Your task to perform on an android device: empty trash in the gmail app Image 0: 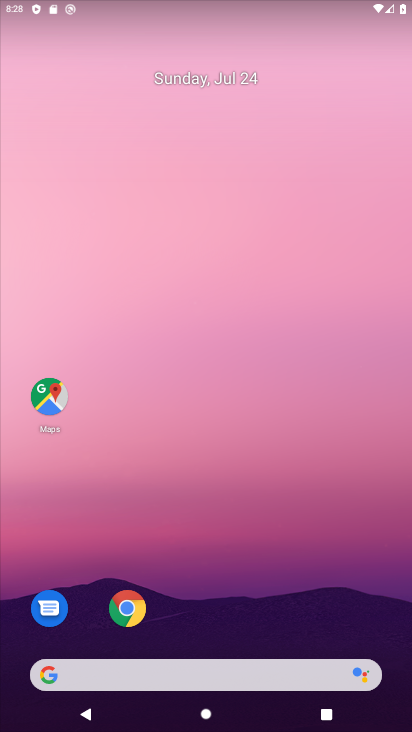
Step 0: drag from (216, 640) to (209, 7)
Your task to perform on an android device: empty trash in the gmail app Image 1: 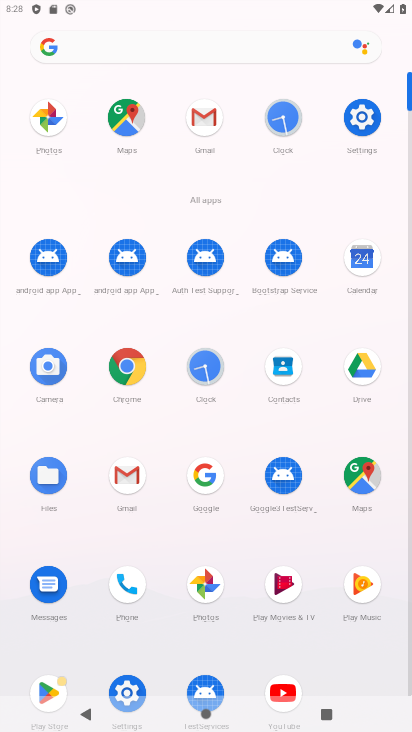
Step 1: click (125, 503)
Your task to perform on an android device: empty trash in the gmail app Image 2: 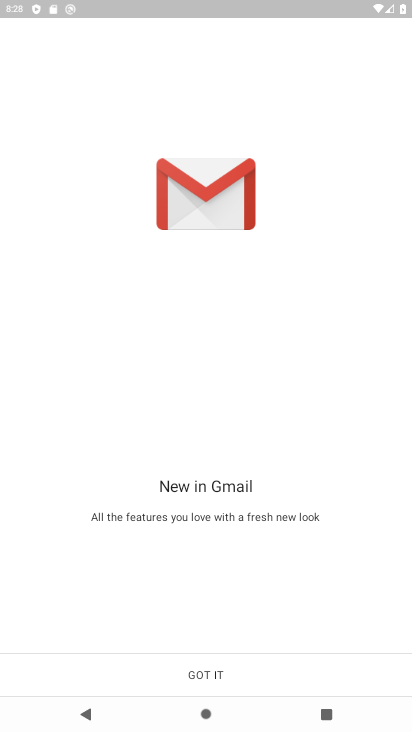
Step 2: click (236, 665)
Your task to perform on an android device: empty trash in the gmail app Image 3: 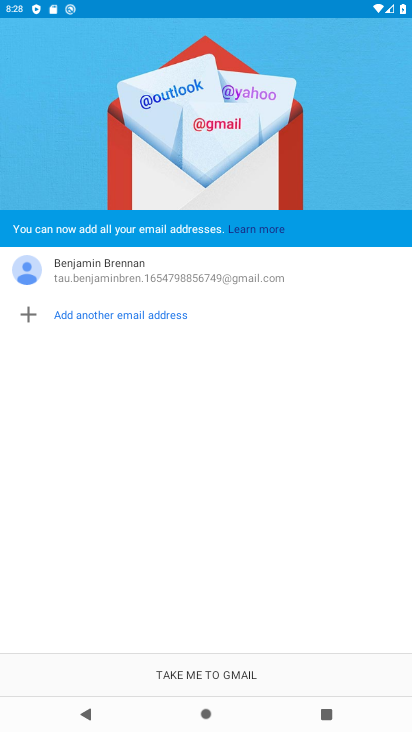
Step 3: click (241, 673)
Your task to perform on an android device: empty trash in the gmail app Image 4: 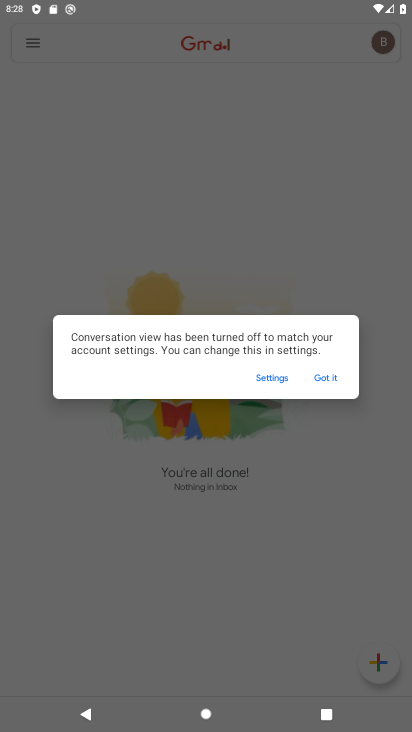
Step 4: click (330, 368)
Your task to perform on an android device: empty trash in the gmail app Image 5: 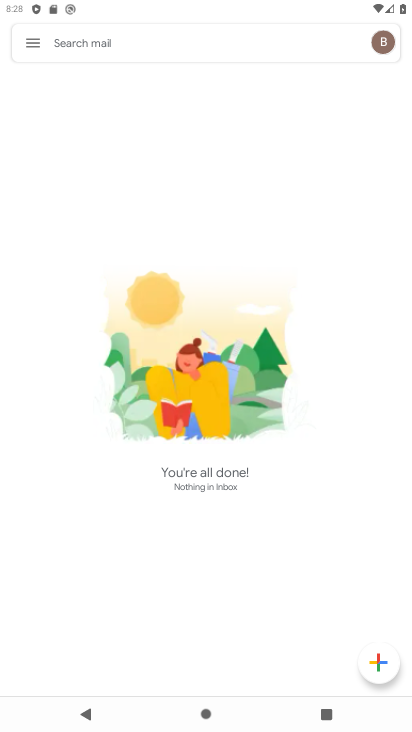
Step 5: click (32, 36)
Your task to perform on an android device: empty trash in the gmail app Image 6: 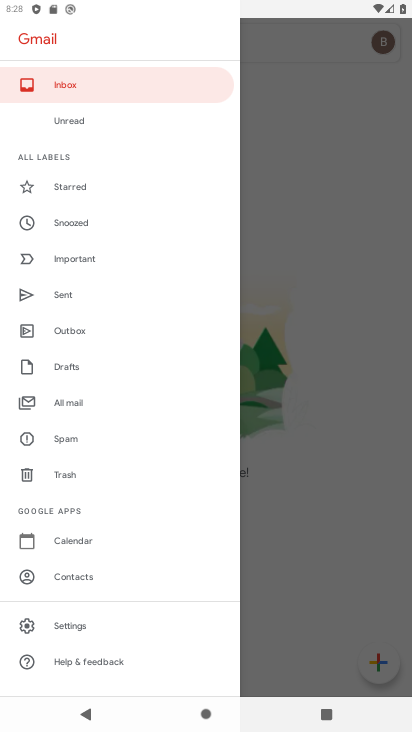
Step 6: click (82, 474)
Your task to perform on an android device: empty trash in the gmail app Image 7: 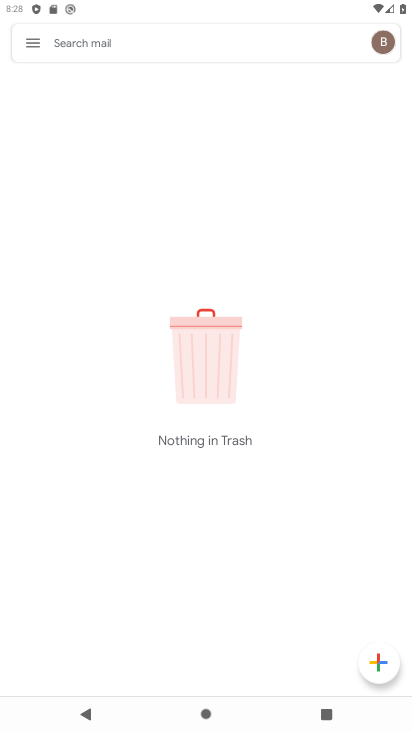
Step 7: task complete